Your task to perform on an android device: What's the weather? Image 0: 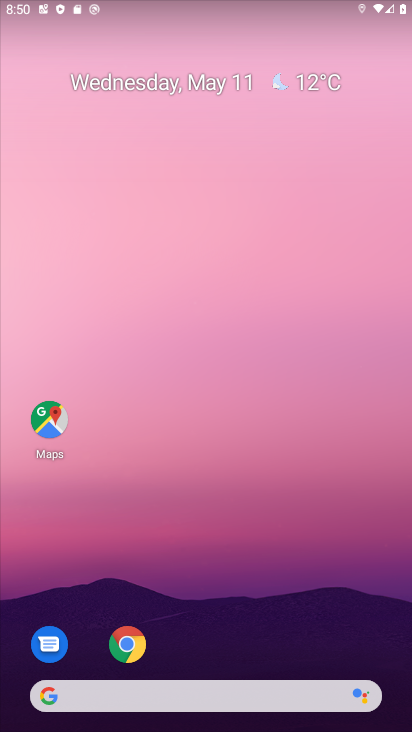
Step 0: click (127, 643)
Your task to perform on an android device: What's the weather? Image 1: 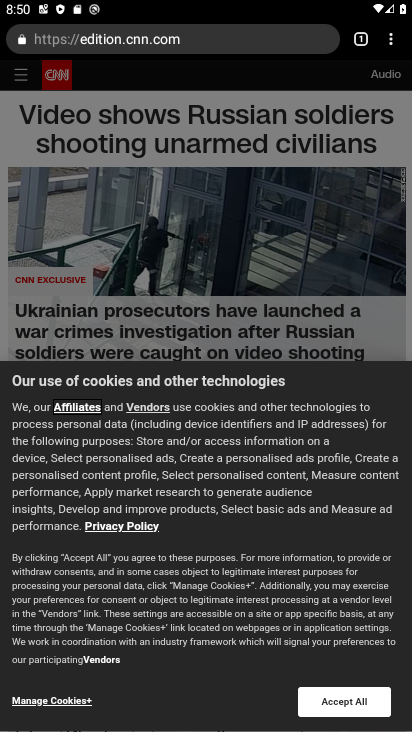
Step 1: click (361, 39)
Your task to perform on an android device: What's the weather? Image 2: 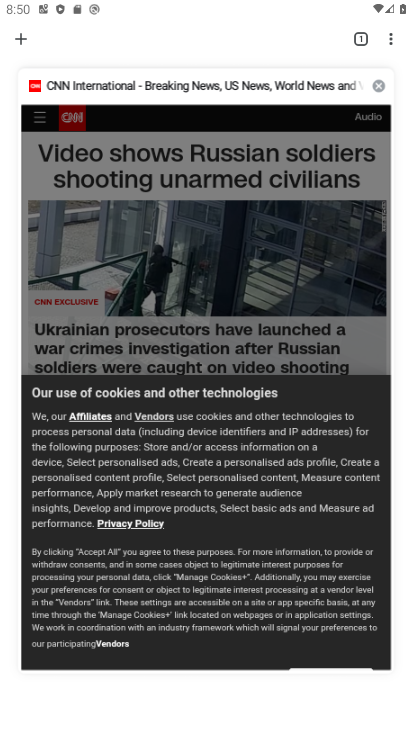
Step 2: click (22, 40)
Your task to perform on an android device: What's the weather? Image 3: 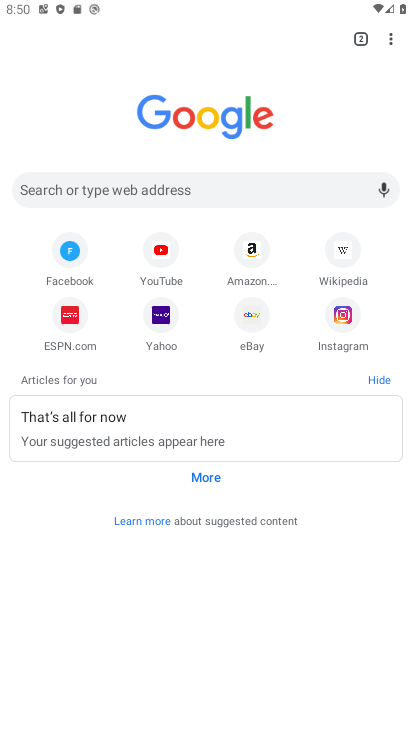
Step 3: click (176, 189)
Your task to perform on an android device: What's the weather? Image 4: 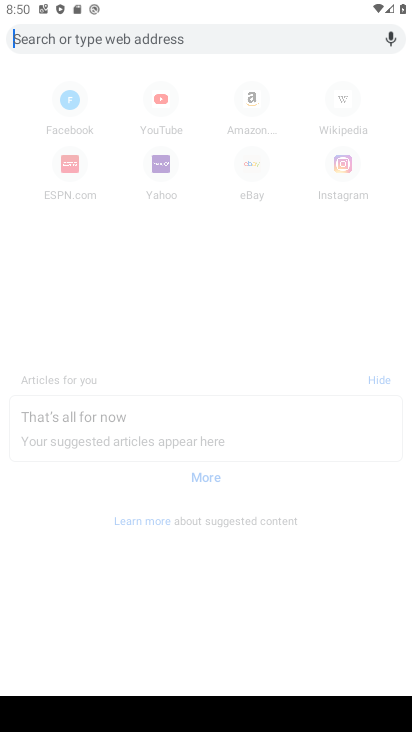
Step 4: type "whats the weather"
Your task to perform on an android device: What's the weather? Image 5: 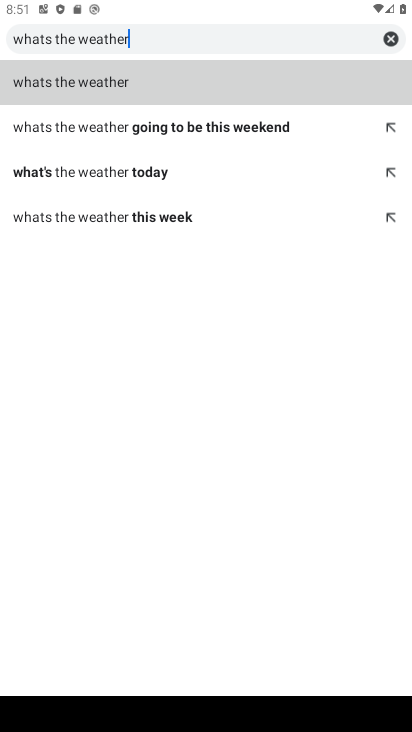
Step 5: click (132, 83)
Your task to perform on an android device: What's the weather? Image 6: 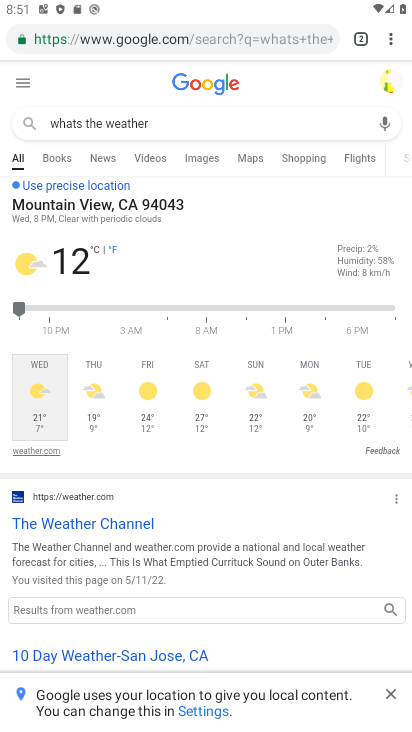
Step 6: task complete